Your task to perform on an android device: toggle notification dots Image 0: 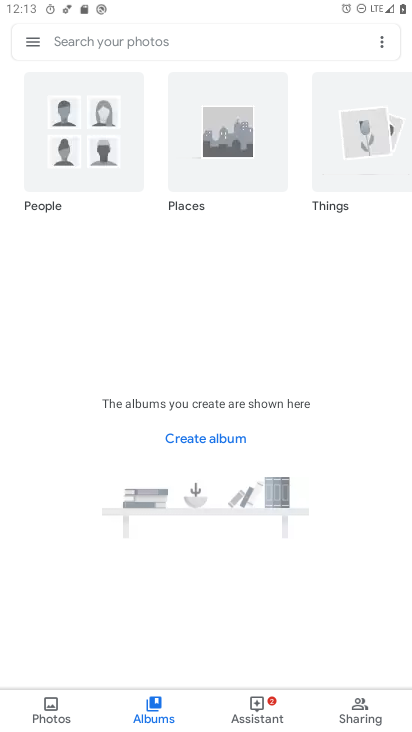
Step 0: press home button
Your task to perform on an android device: toggle notification dots Image 1: 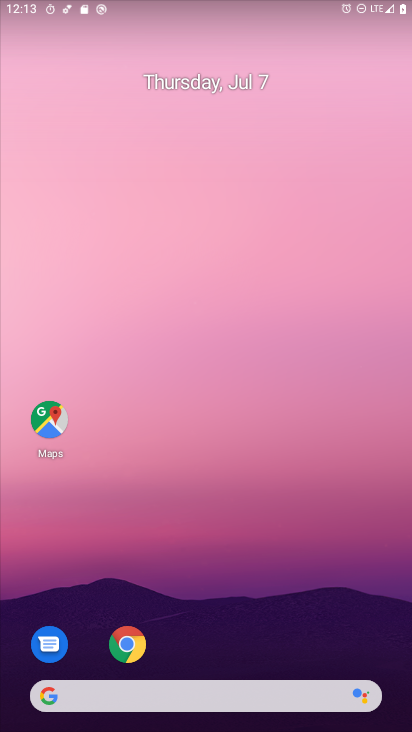
Step 1: drag from (226, 645) to (222, 119)
Your task to perform on an android device: toggle notification dots Image 2: 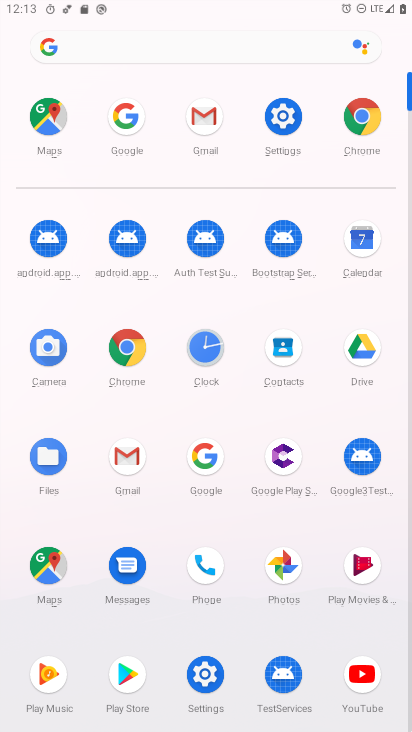
Step 2: click (278, 117)
Your task to perform on an android device: toggle notification dots Image 3: 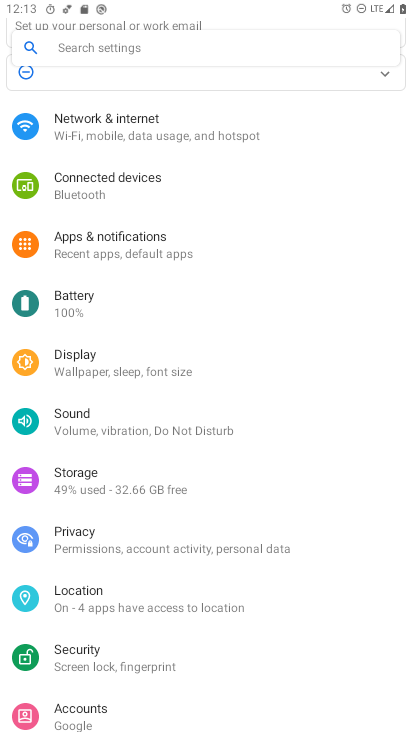
Step 3: click (151, 238)
Your task to perform on an android device: toggle notification dots Image 4: 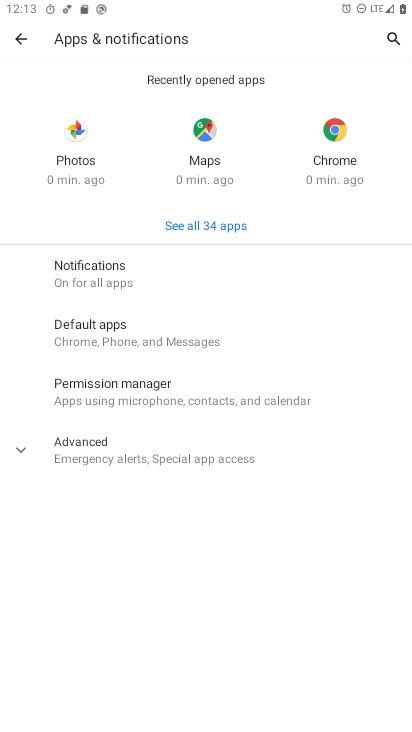
Step 4: click (119, 268)
Your task to perform on an android device: toggle notification dots Image 5: 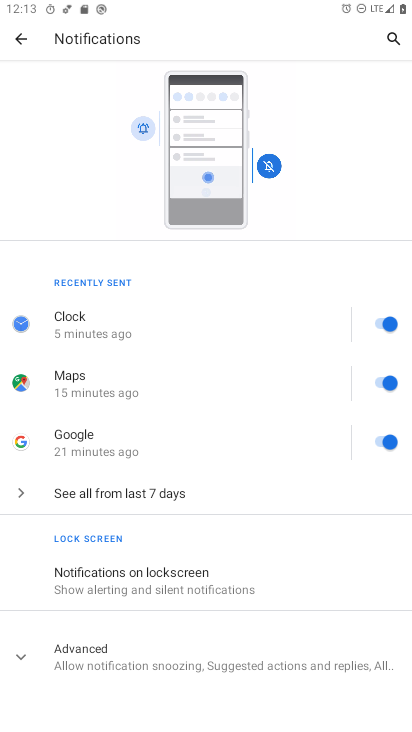
Step 5: click (134, 657)
Your task to perform on an android device: toggle notification dots Image 6: 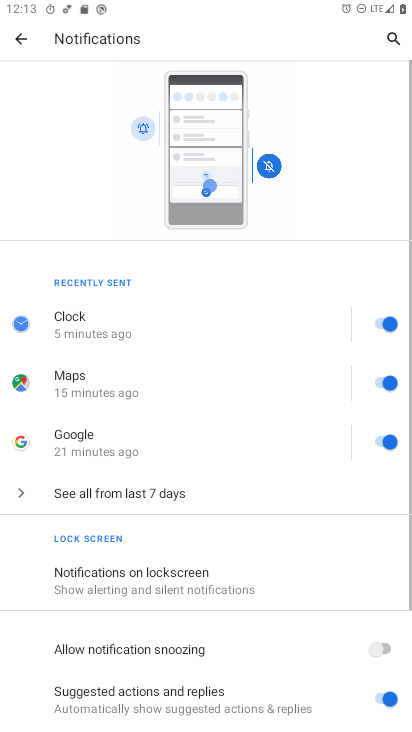
Step 6: drag from (253, 604) to (237, 273)
Your task to perform on an android device: toggle notification dots Image 7: 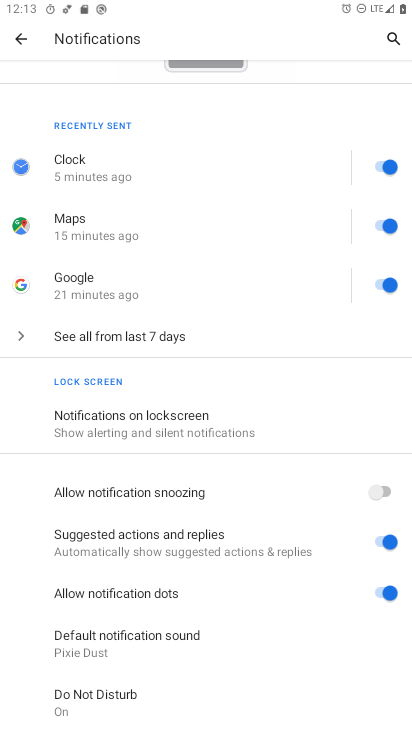
Step 7: click (380, 586)
Your task to perform on an android device: toggle notification dots Image 8: 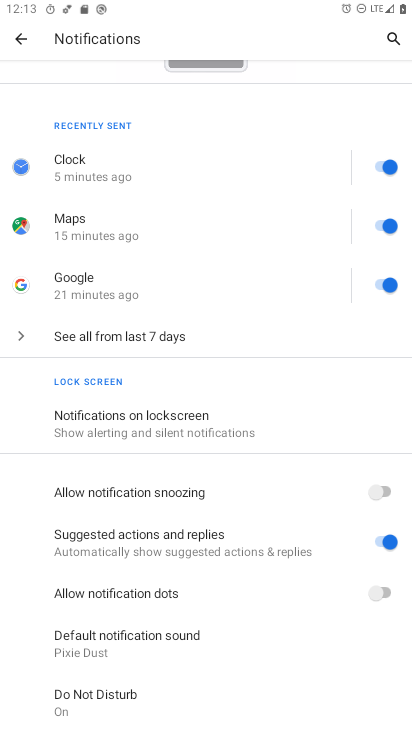
Step 8: task complete